Your task to perform on an android device: change notification settings in the gmail app Image 0: 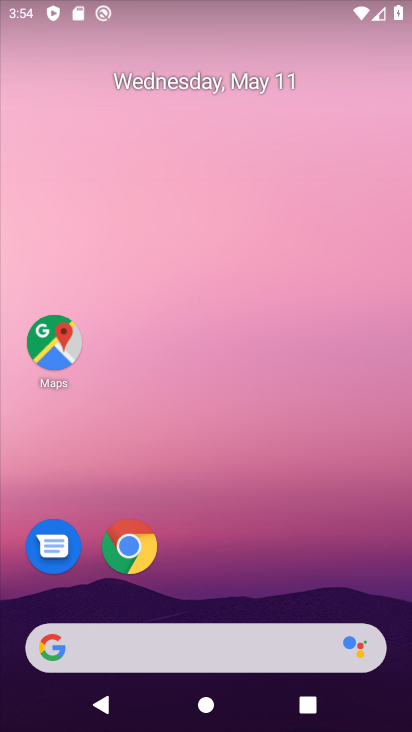
Step 0: drag from (253, 625) to (320, 173)
Your task to perform on an android device: change notification settings in the gmail app Image 1: 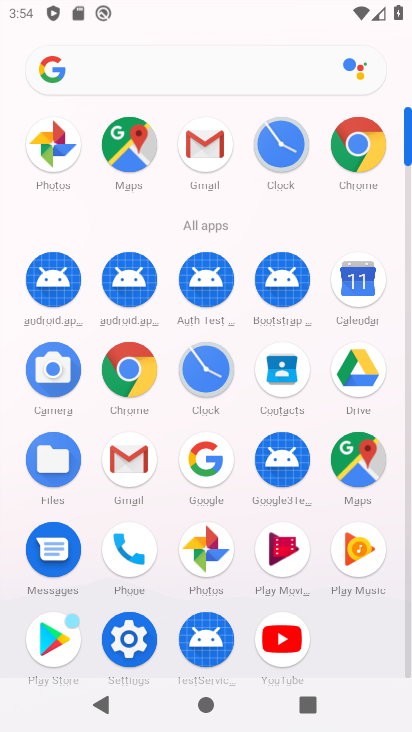
Step 1: click (218, 146)
Your task to perform on an android device: change notification settings in the gmail app Image 2: 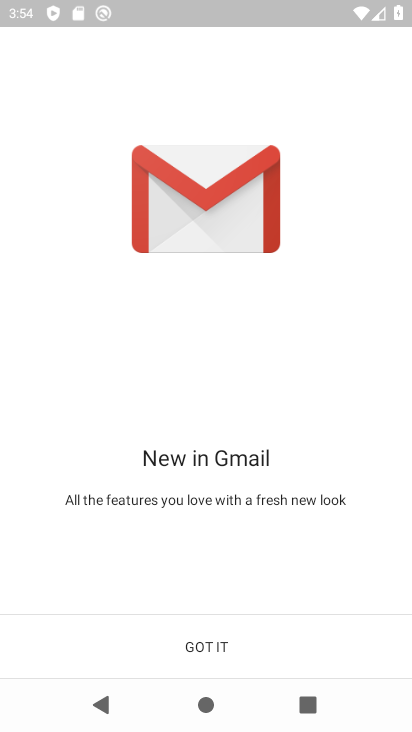
Step 2: click (198, 641)
Your task to perform on an android device: change notification settings in the gmail app Image 3: 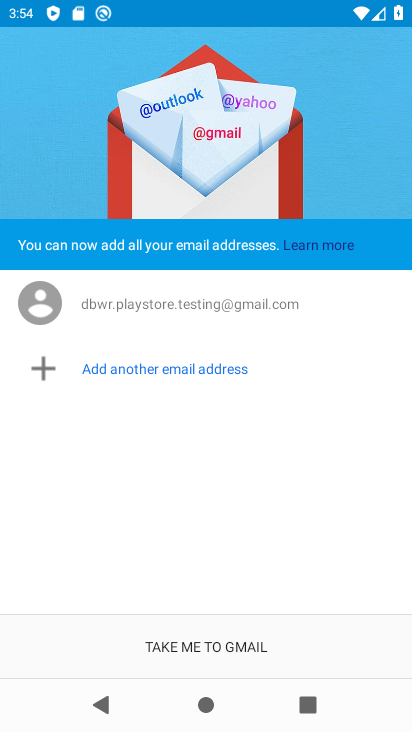
Step 3: click (197, 643)
Your task to perform on an android device: change notification settings in the gmail app Image 4: 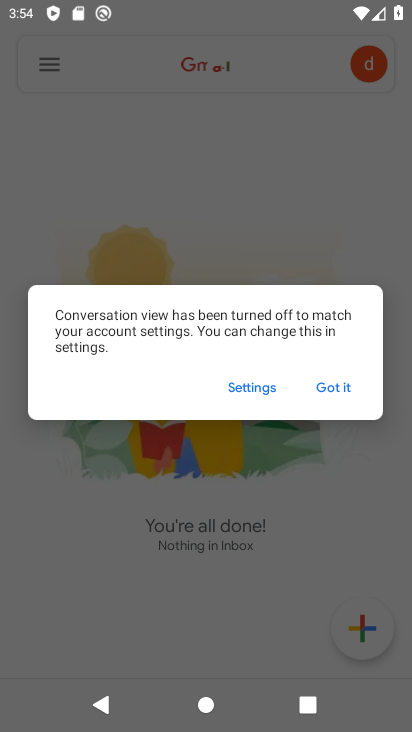
Step 4: click (345, 386)
Your task to perform on an android device: change notification settings in the gmail app Image 5: 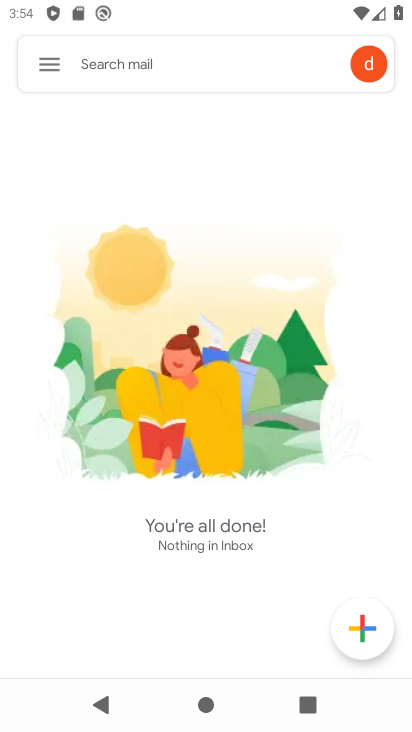
Step 5: click (48, 69)
Your task to perform on an android device: change notification settings in the gmail app Image 6: 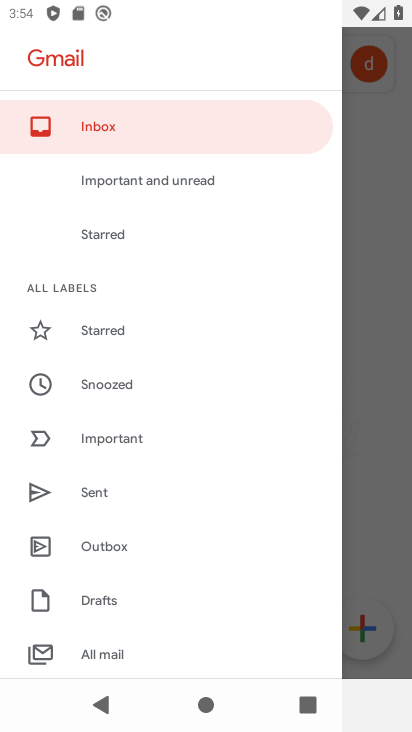
Step 6: drag from (132, 635) to (134, 287)
Your task to perform on an android device: change notification settings in the gmail app Image 7: 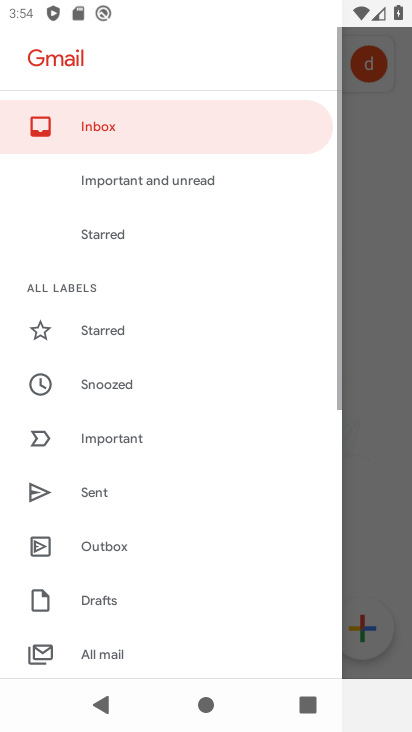
Step 7: drag from (119, 631) to (172, 231)
Your task to perform on an android device: change notification settings in the gmail app Image 8: 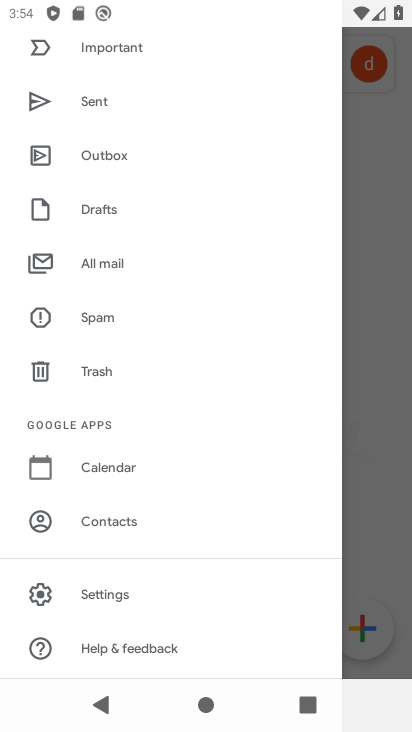
Step 8: click (110, 584)
Your task to perform on an android device: change notification settings in the gmail app Image 9: 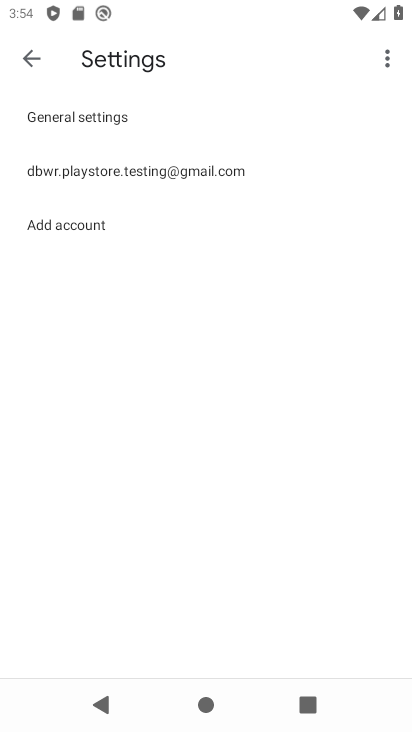
Step 9: click (140, 166)
Your task to perform on an android device: change notification settings in the gmail app Image 10: 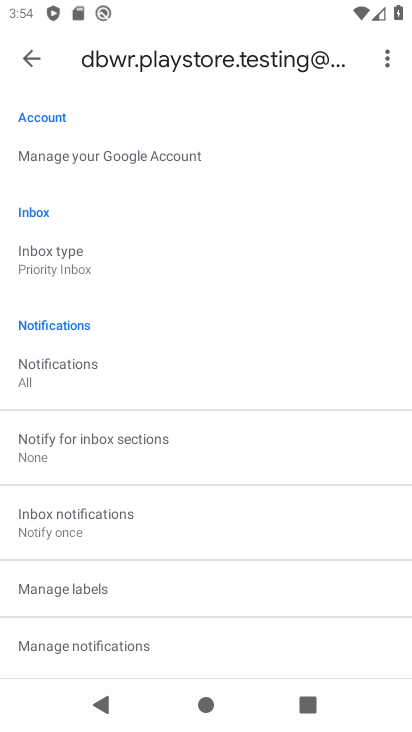
Step 10: click (65, 371)
Your task to perform on an android device: change notification settings in the gmail app Image 11: 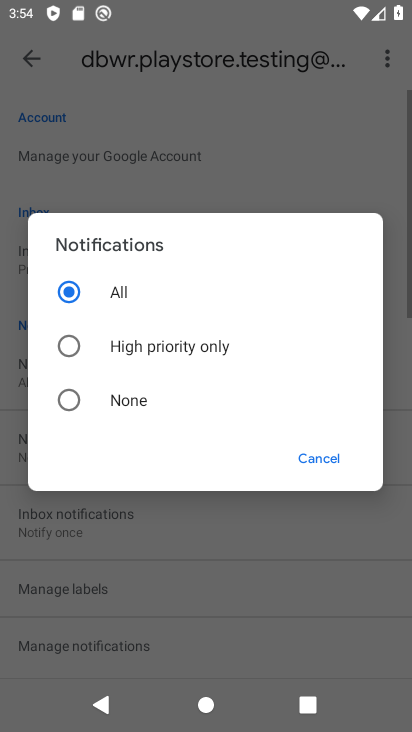
Step 11: click (83, 394)
Your task to perform on an android device: change notification settings in the gmail app Image 12: 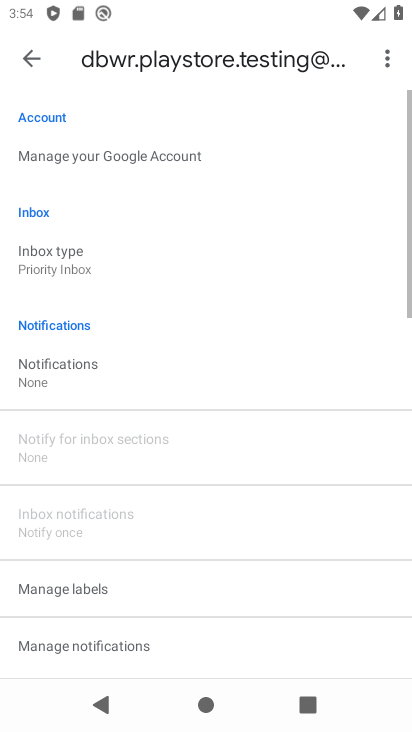
Step 12: task complete